Your task to perform on an android device: Open the Play Movies app and select the watchlist tab. Image 0: 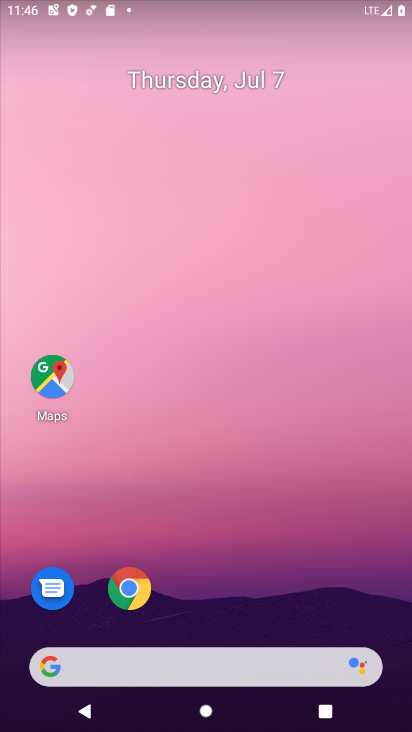
Step 0: drag from (228, 238) to (275, 64)
Your task to perform on an android device: Open the Play Movies app and select the watchlist tab. Image 1: 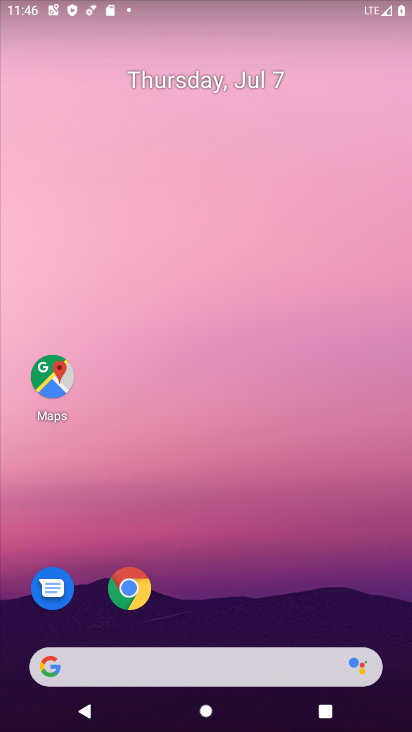
Step 1: drag from (223, 637) to (241, 140)
Your task to perform on an android device: Open the Play Movies app and select the watchlist tab. Image 2: 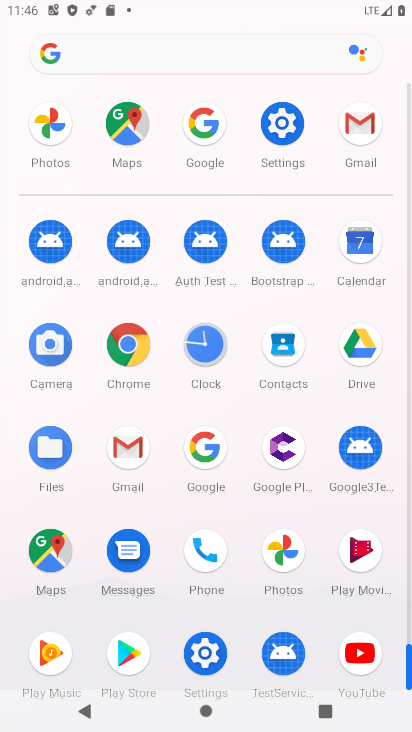
Step 2: drag from (327, 564) to (305, 408)
Your task to perform on an android device: Open the Play Movies app and select the watchlist tab. Image 3: 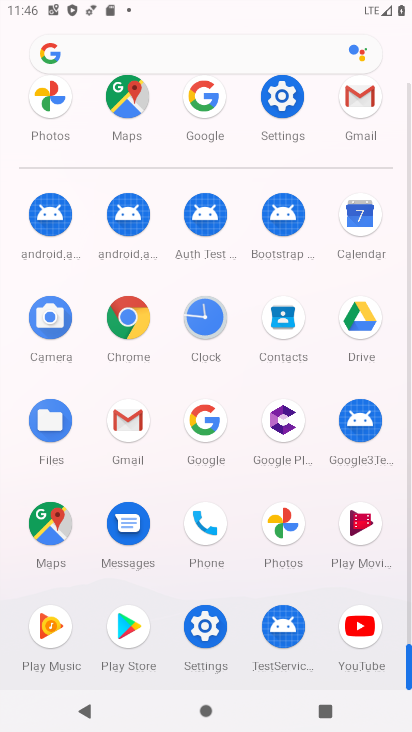
Step 3: click (361, 520)
Your task to perform on an android device: Open the Play Movies app and select the watchlist tab. Image 4: 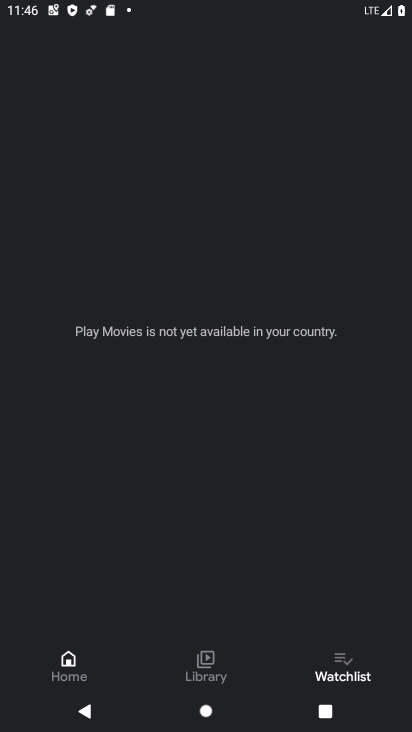
Step 4: click (343, 676)
Your task to perform on an android device: Open the Play Movies app and select the watchlist tab. Image 5: 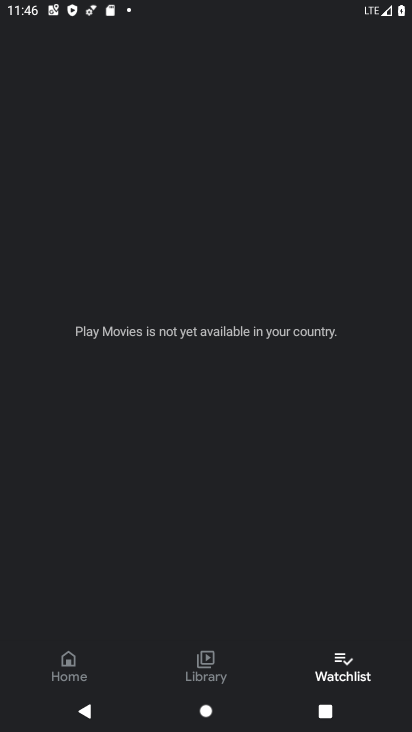
Step 5: task complete